Your task to perform on an android device: set the timer Image 0: 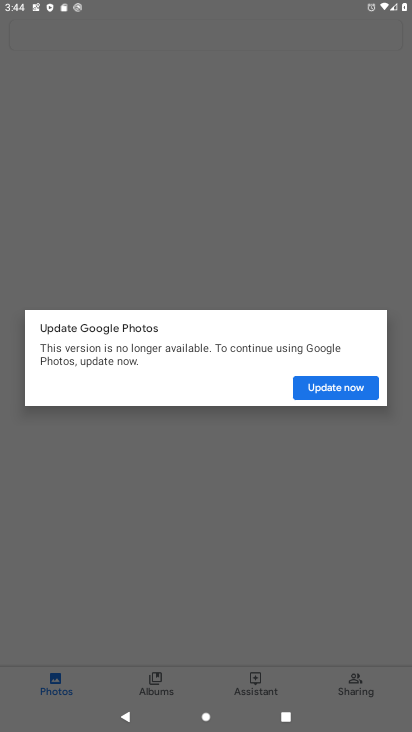
Step 0: press home button
Your task to perform on an android device: set the timer Image 1: 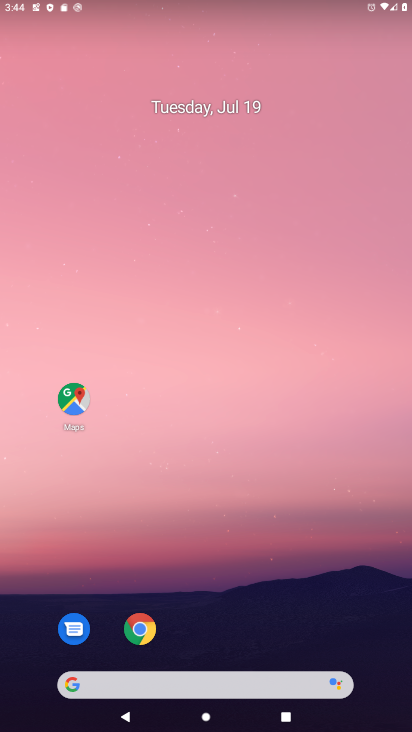
Step 1: drag from (239, 646) to (212, 276)
Your task to perform on an android device: set the timer Image 2: 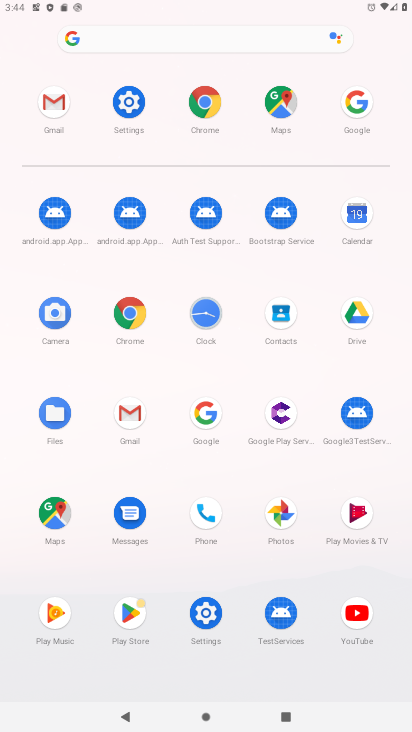
Step 2: click (213, 315)
Your task to perform on an android device: set the timer Image 3: 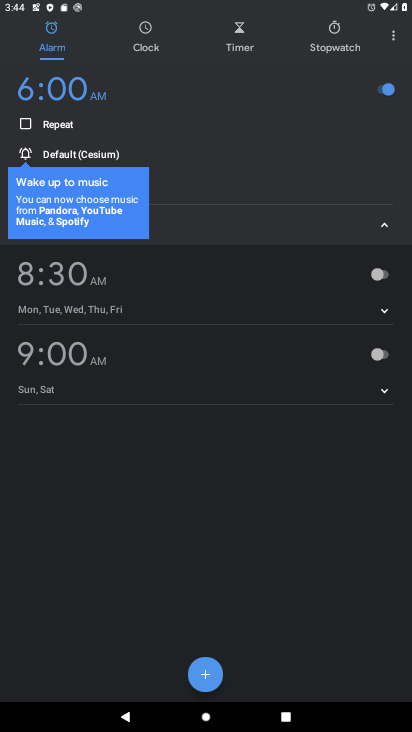
Step 3: click (246, 33)
Your task to perform on an android device: set the timer Image 4: 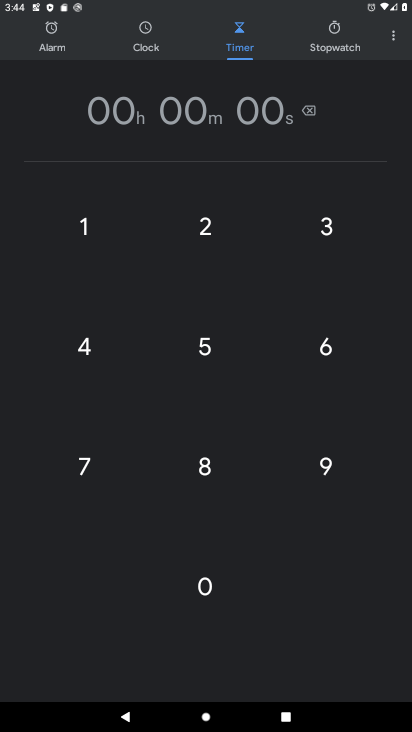
Step 4: click (202, 588)
Your task to perform on an android device: set the timer Image 5: 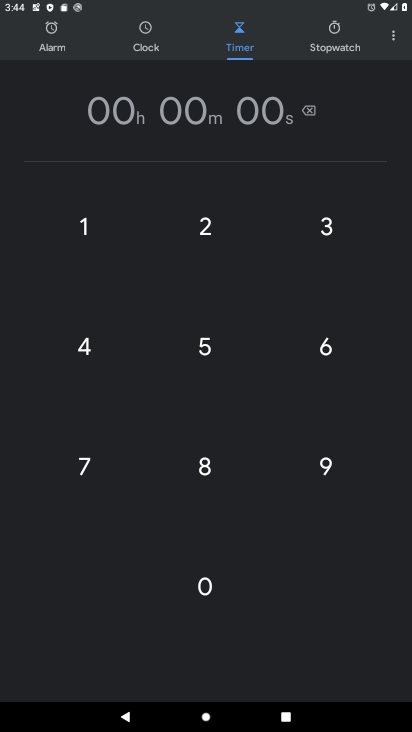
Step 5: click (322, 229)
Your task to perform on an android device: set the timer Image 6: 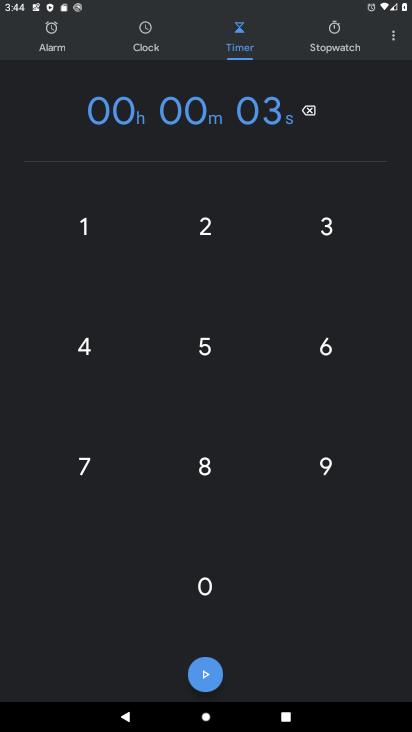
Step 6: click (201, 586)
Your task to perform on an android device: set the timer Image 7: 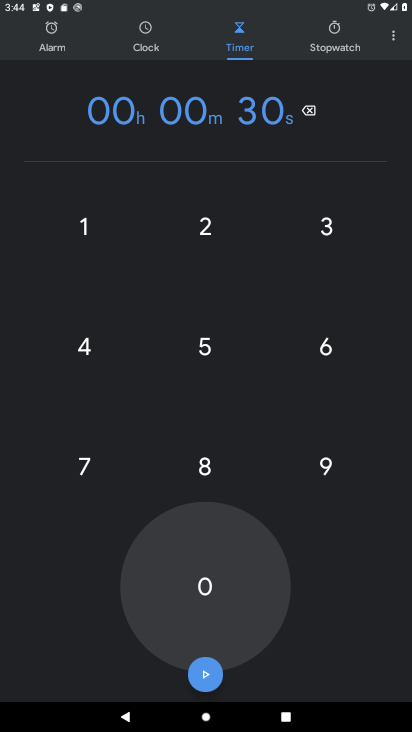
Step 7: click (209, 466)
Your task to perform on an android device: set the timer Image 8: 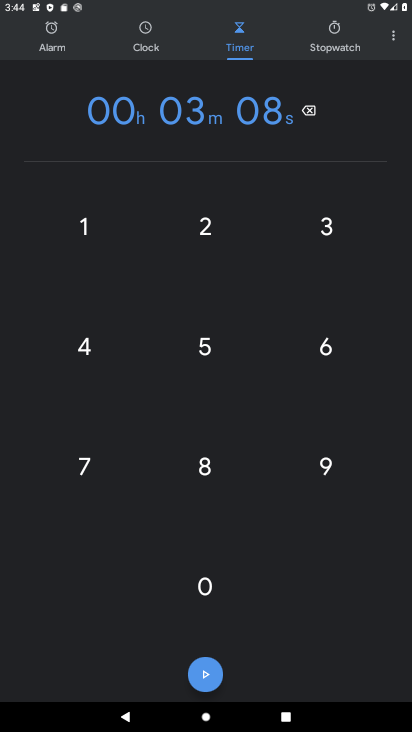
Step 8: click (220, 673)
Your task to perform on an android device: set the timer Image 9: 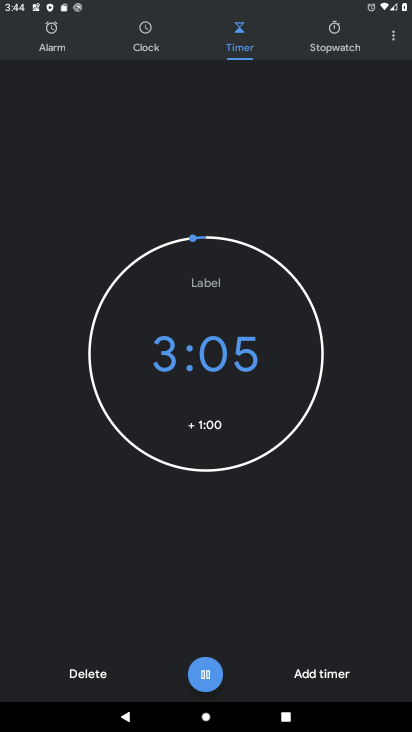
Step 9: task complete